Your task to perform on an android device: turn on improve location accuracy Image 0: 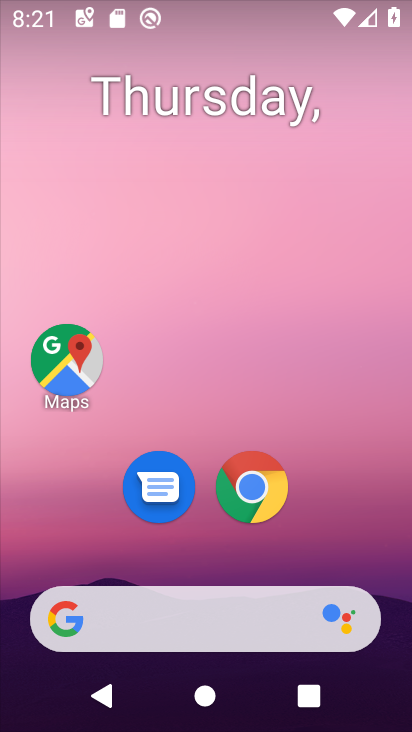
Step 0: drag from (213, 471) to (263, 101)
Your task to perform on an android device: turn on improve location accuracy Image 1: 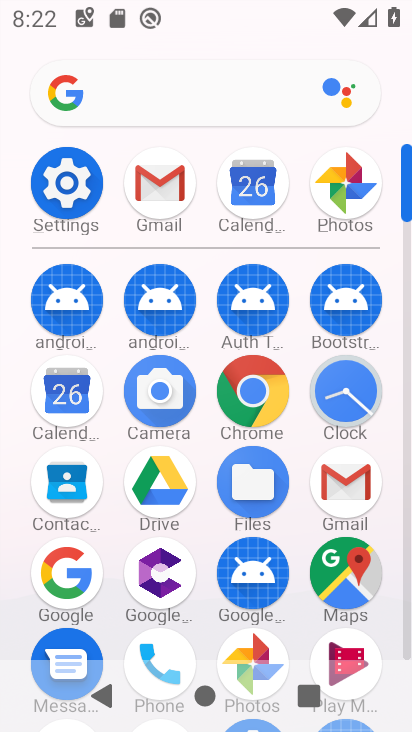
Step 1: click (77, 172)
Your task to perform on an android device: turn on improve location accuracy Image 2: 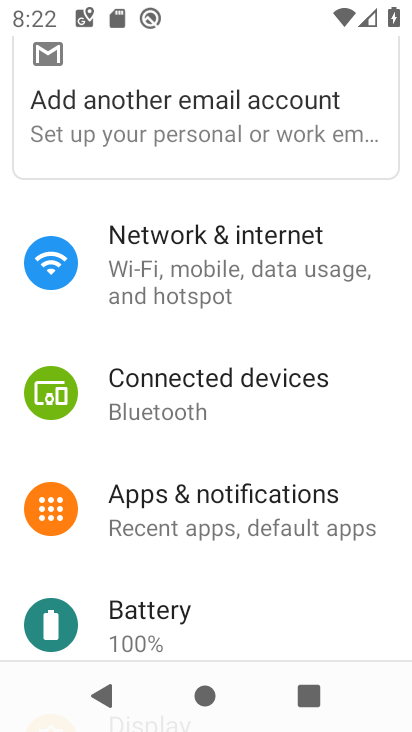
Step 2: drag from (213, 595) to (275, 83)
Your task to perform on an android device: turn on improve location accuracy Image 3: 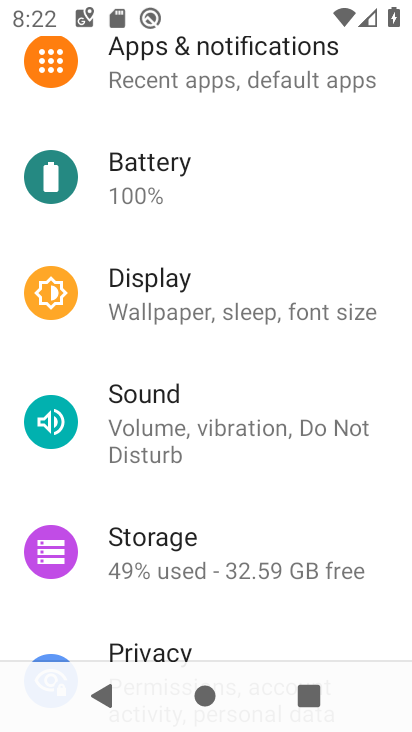
Step 3: drag from (216, 550) to (258, 156)
Your task to perform on an android device: turn on improve location accuracy Image 4: 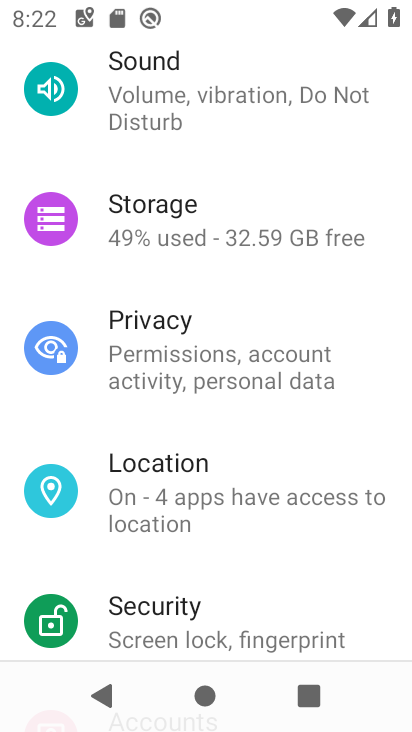
Step 4: click (199, 480)
Your task to perform on an android device: turn on improve location accuracy Image 5: 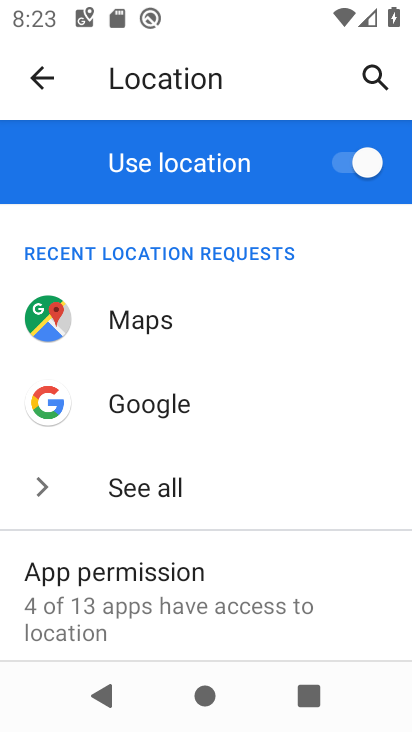
Step 5: drag from (250, 593) to (279, 119)
Your task to perform on an android device: turn on improve location accuracy Image 6: 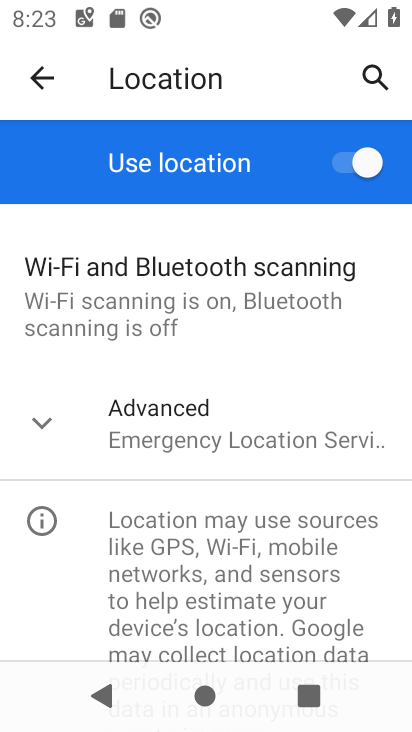
Step 6: click (175, 439)
Your task to perform on an android device: turn on improve location accuracy Image 7: 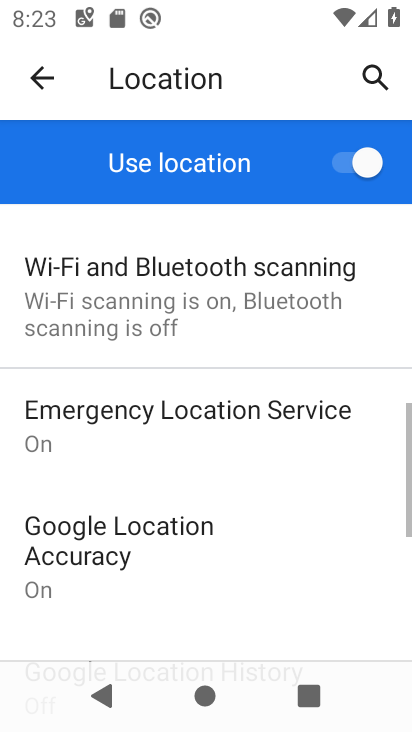
Step 7: drag from (183, 589) to (207, 477)
Your task to perform on an android device: turn on improve location accuracy Image 8: 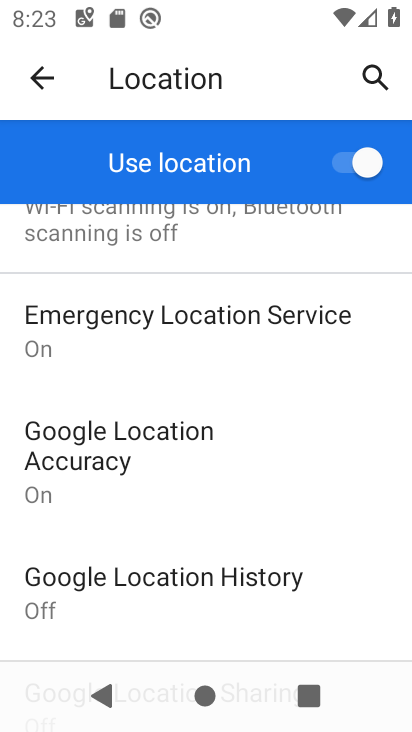
Step 8: click (87, 440)
Your task to perform on an android device: turn on improve location accuracy Image 9: 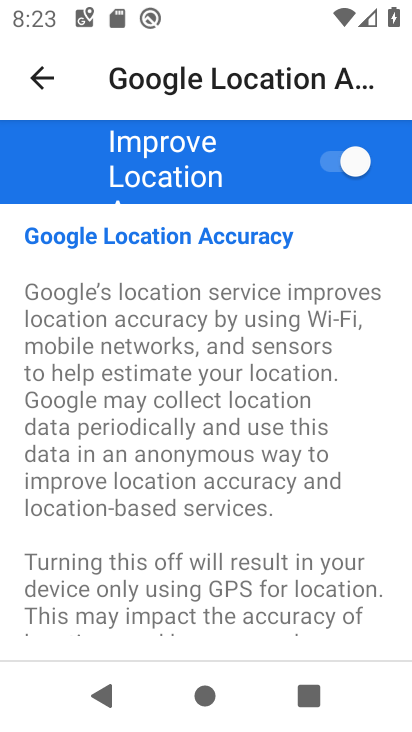
Step 9: task complete